Your task to perform on an android device: View the shopping cart on bestbuy.com. Image 0: 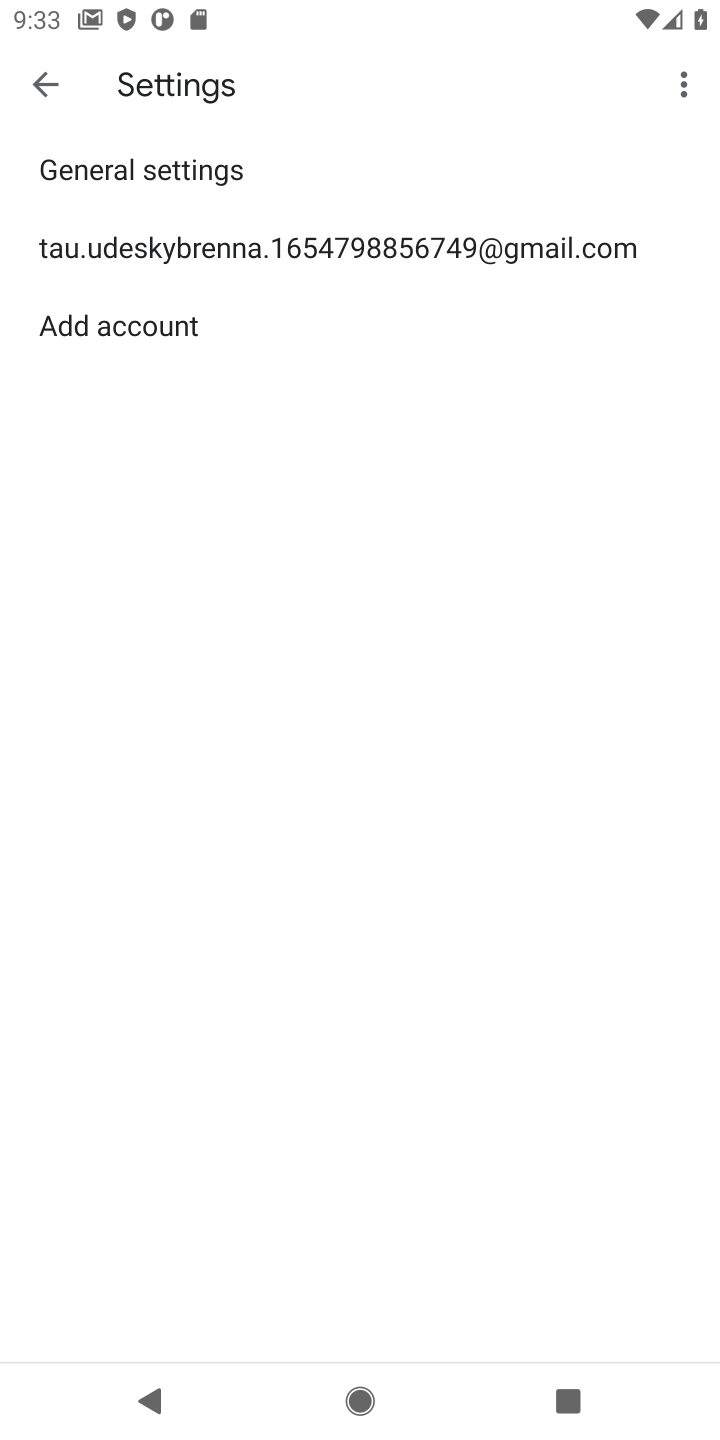
Step 0: press home button
Your task to perform on an android device: View the shopping cart on bestbuy.com. Image 1: 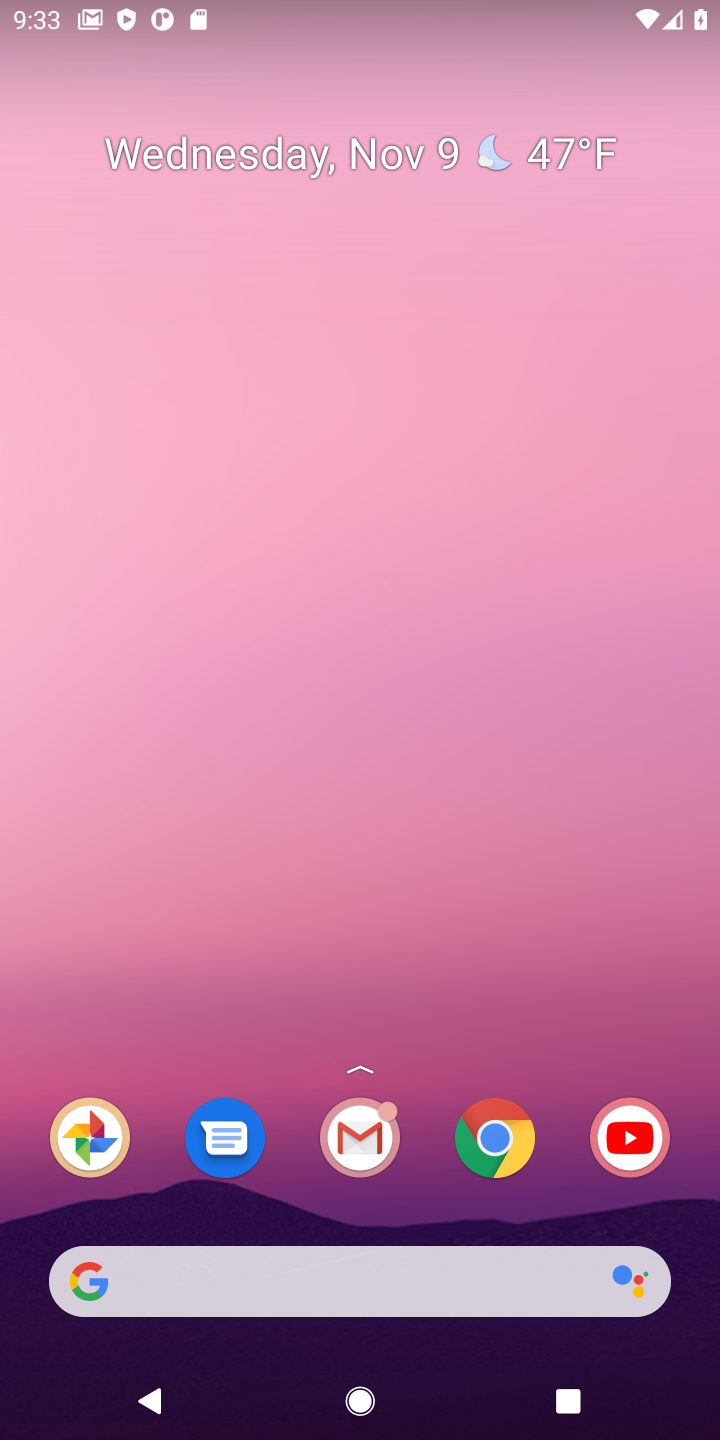
Step 1: drag from (434, 1038) to (487, 150)
Your task to perform on an android device: View the shopping cart on bestbuy.com. Image 2: 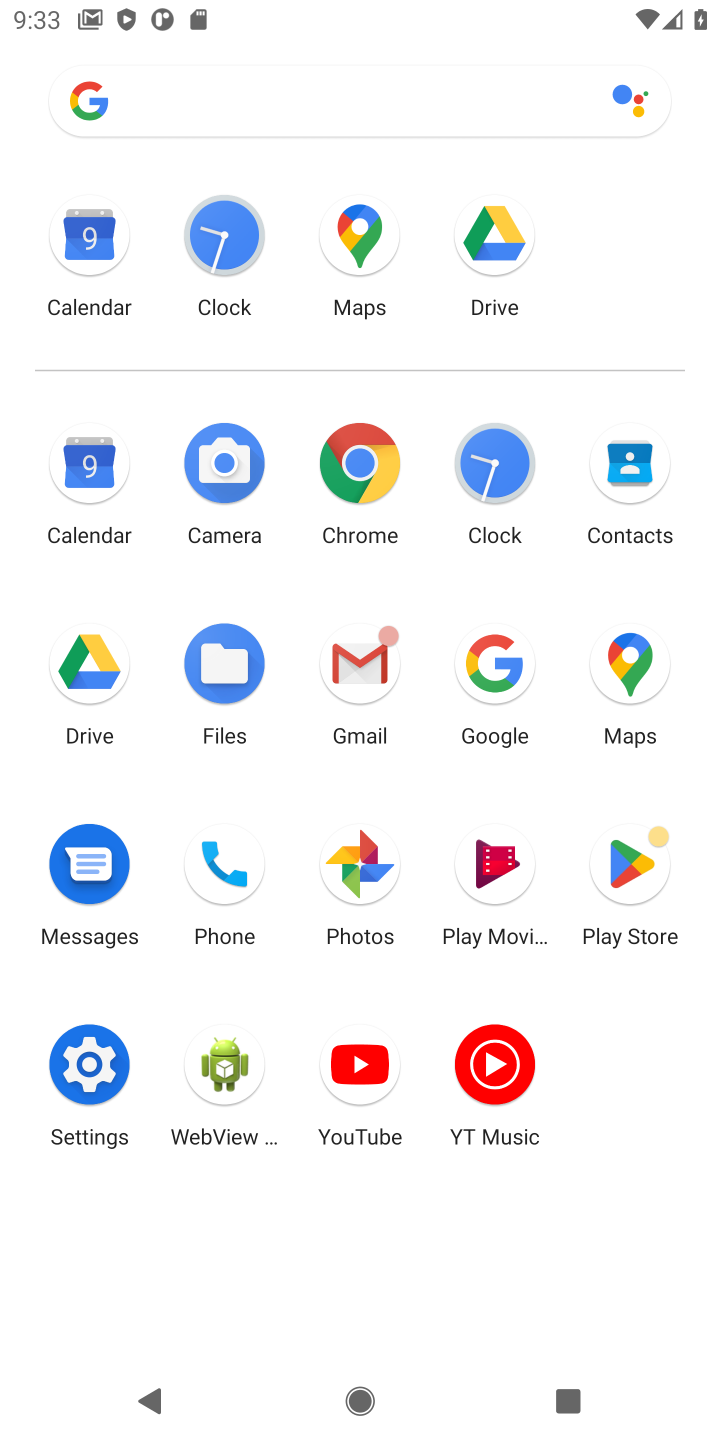
Step 2: click (378, 458)
Your task to perform on an android device: View the shopping cart on bestbuy.com. Image 3: 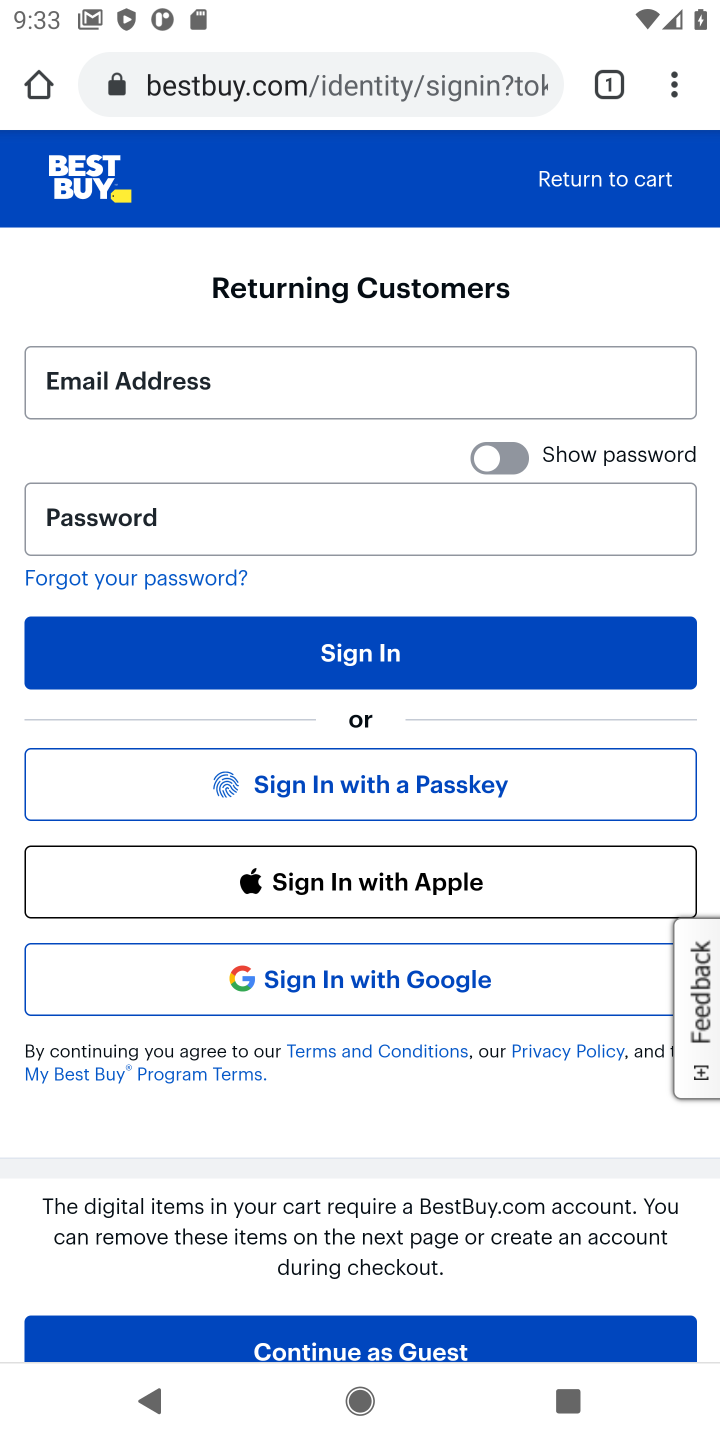
Step 3: click (359, 91)
Your task to perform on an android device: View the shopping cart on bestbuy.com. Image 4: 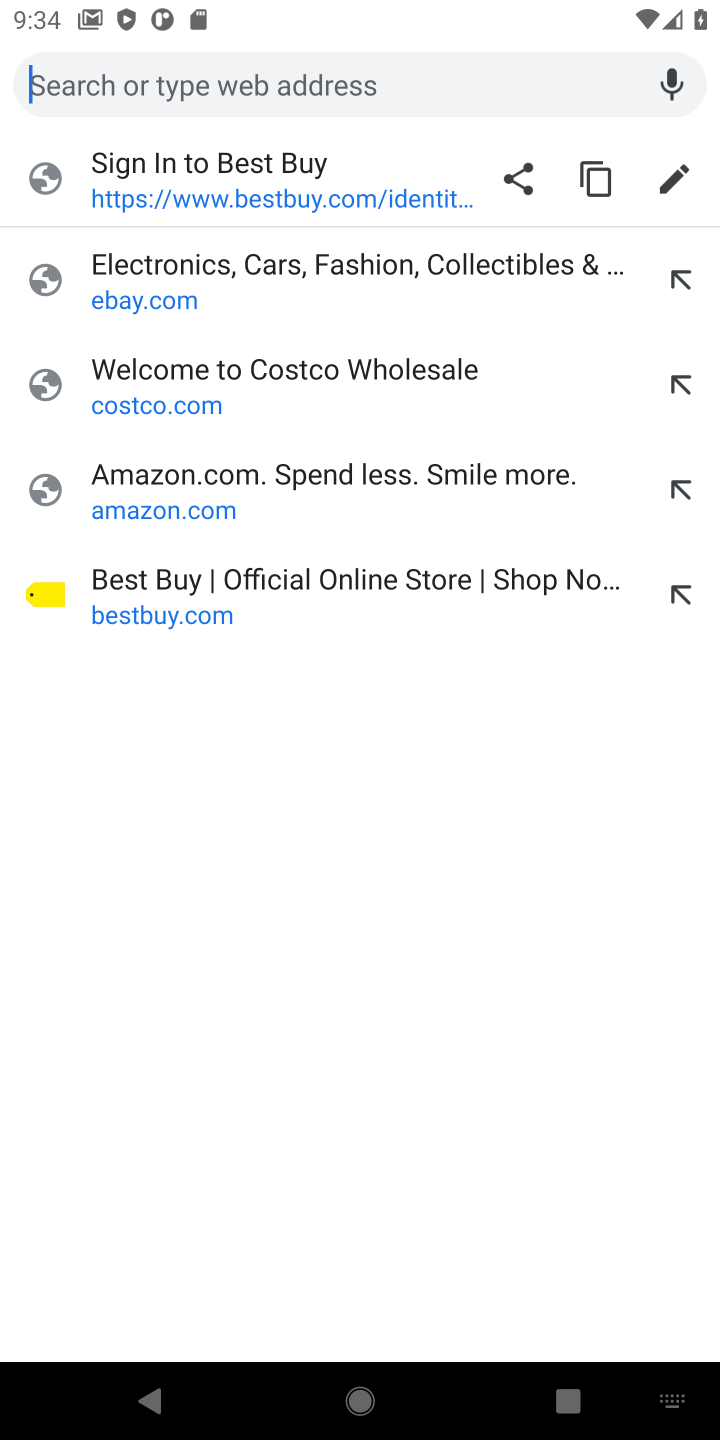
Step 4: type "bestbuy.com"
Your task to perform on an android device: View the shopping cart on bestbuy.com. Image 5: 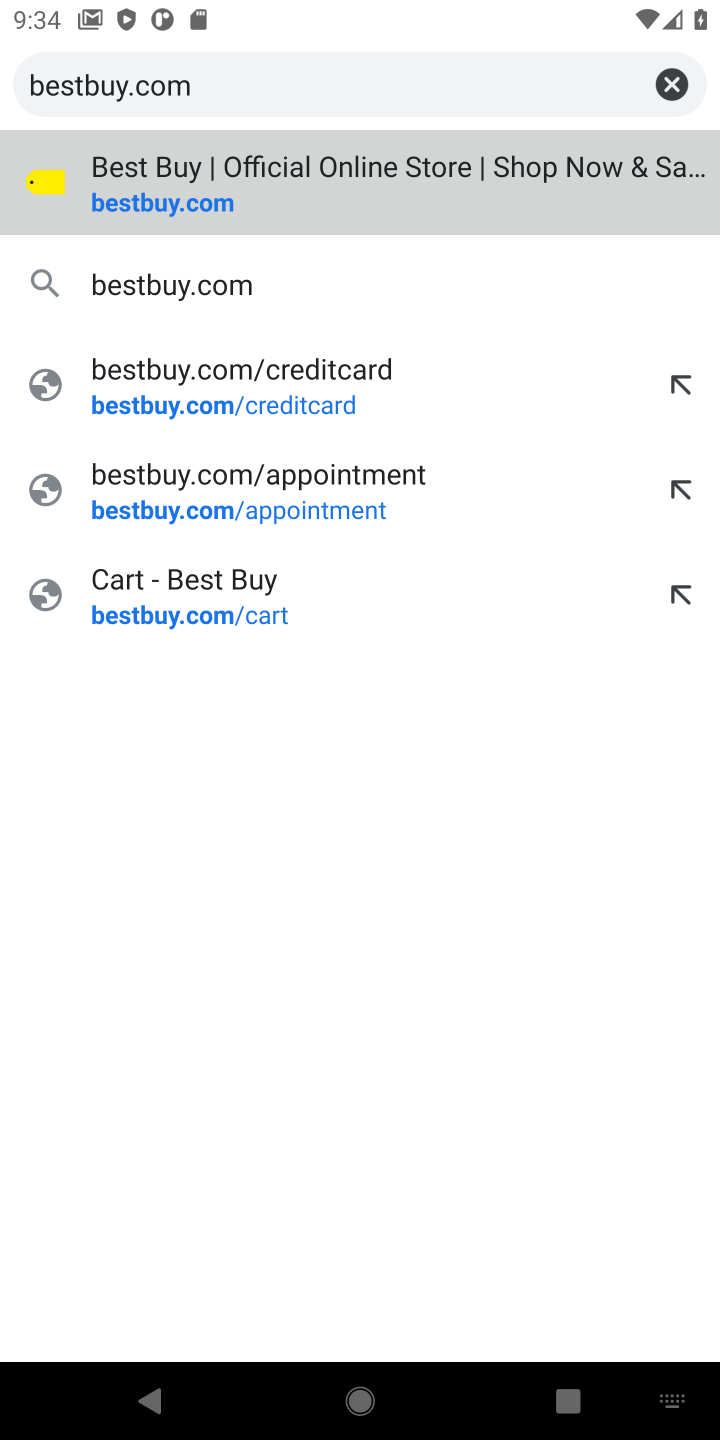
Step 5: press enter
Your task to perform on an android device: View the shopping cart on bestbuy.com. Image 6: 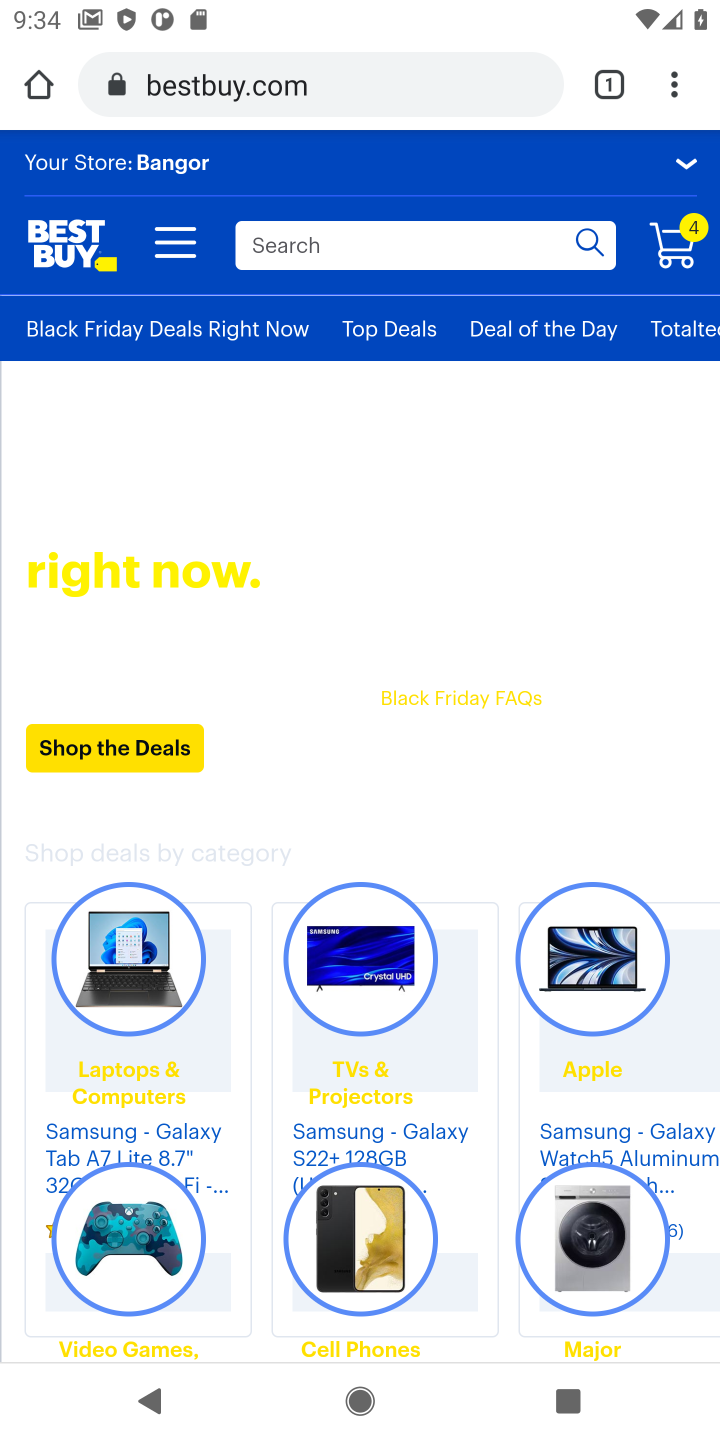
Step 6: click (667, 243)
Your task to perform on an android device: View the shopping cart on bestbuy.com. Image 7: 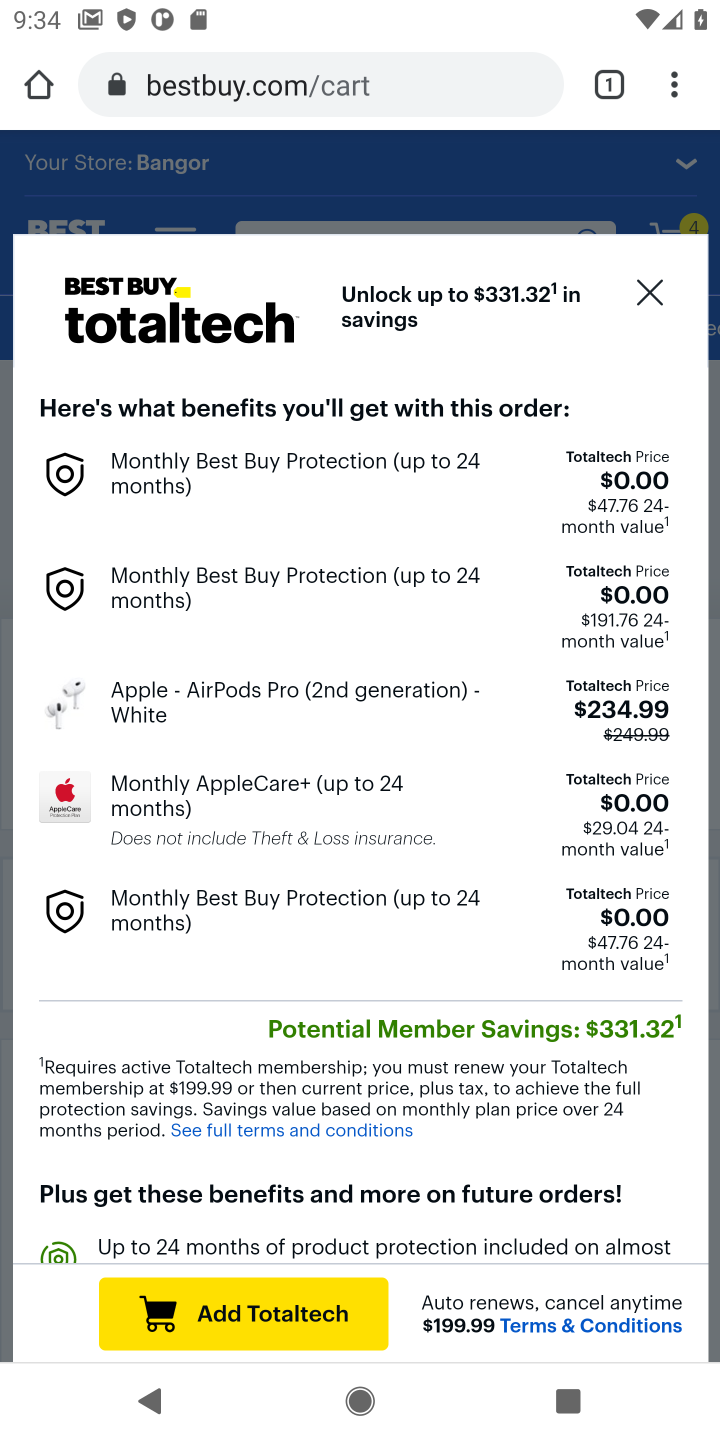
Step 7: click (647, 280)
Your task to perform on an android device: View the shopping cart on bestbuy.com. Image 8: 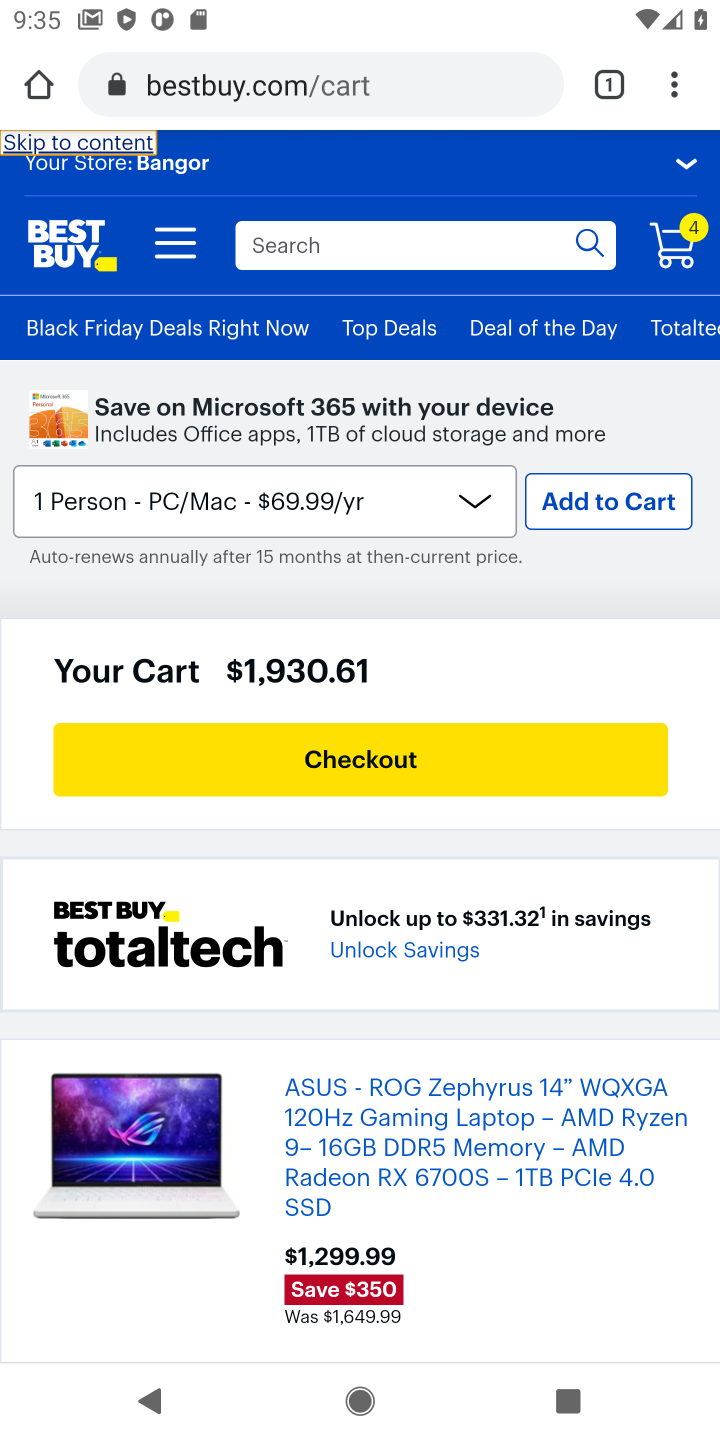
Step 8: task complete